Your task to perform on an android device: turn off improve location accuracy Image 0: 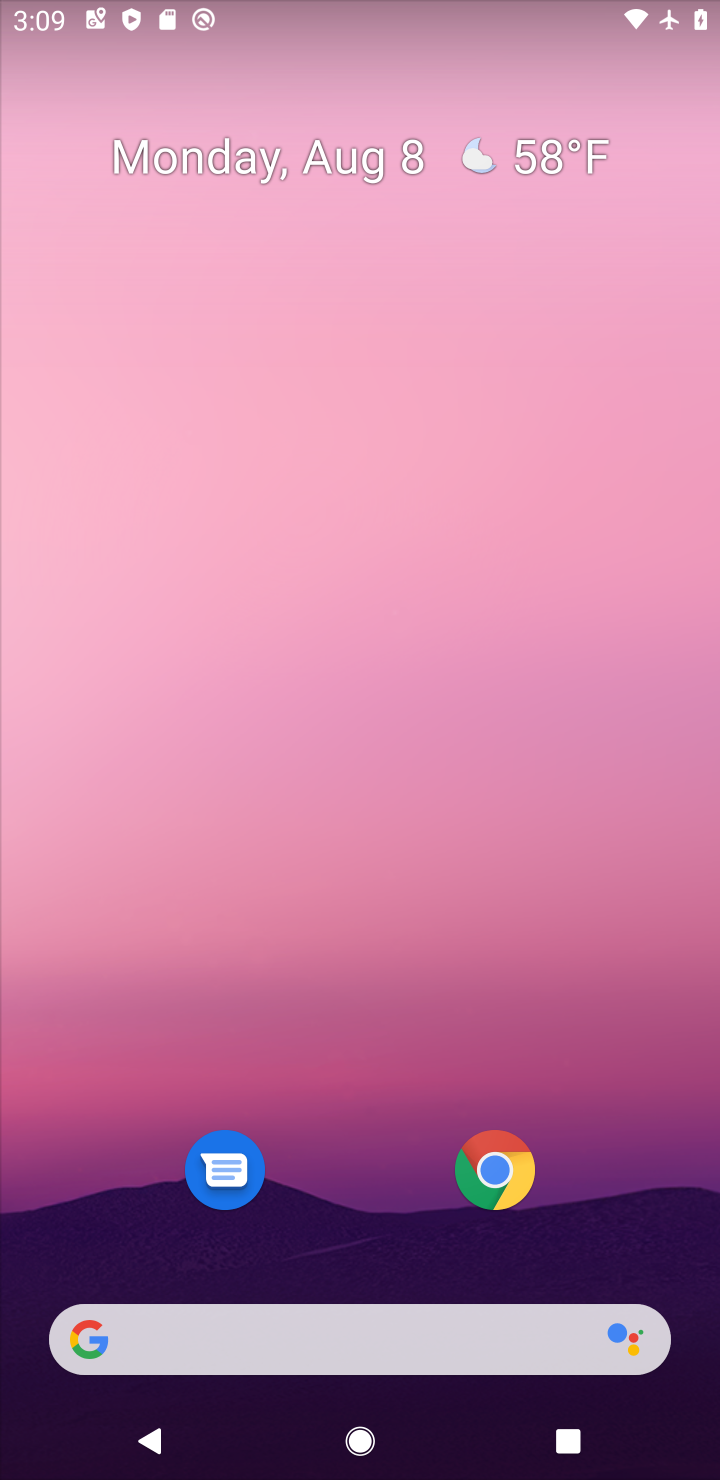
Step 0: click (671, 85)
Your task to perform on an android device: turn off improve location accuracy Image 1: 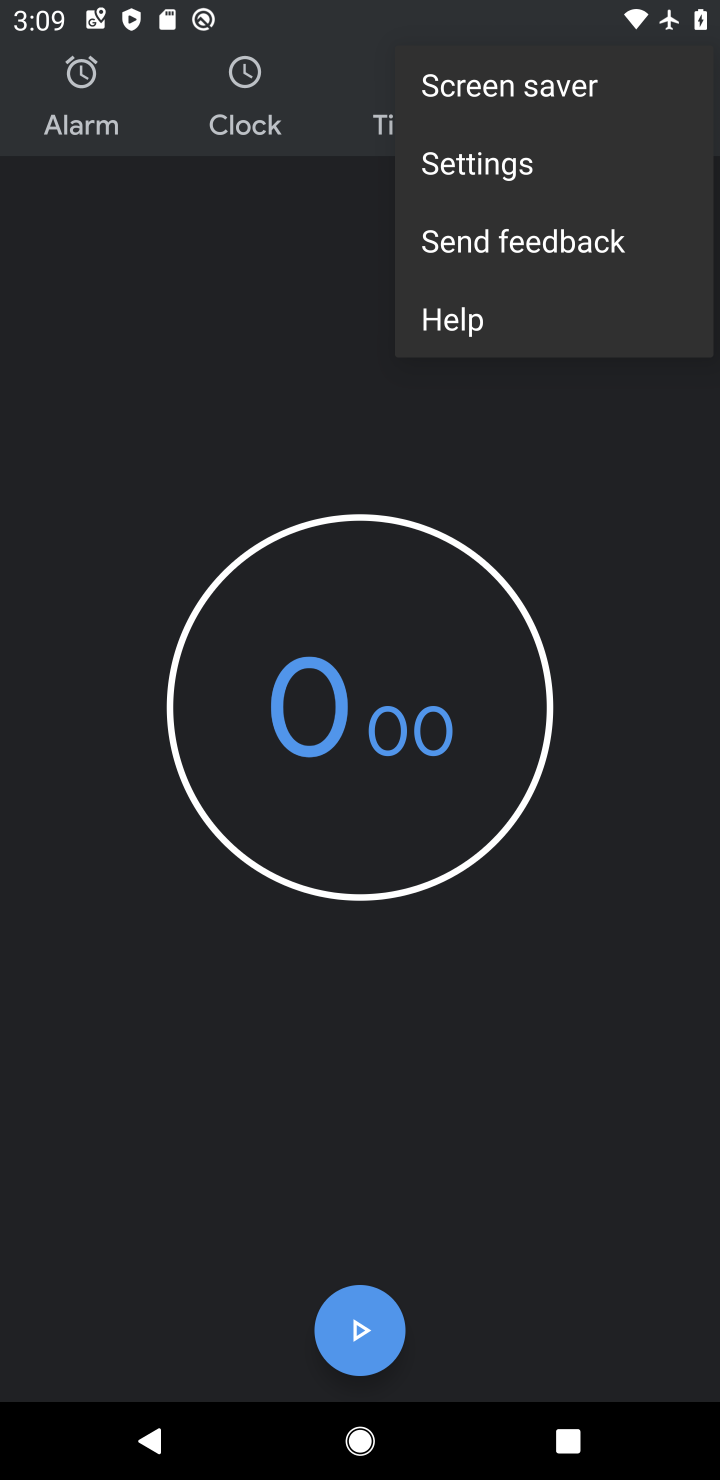
Step 1: press back button
Your task to perform on an android device: turn off improve location accuracy Image 2: 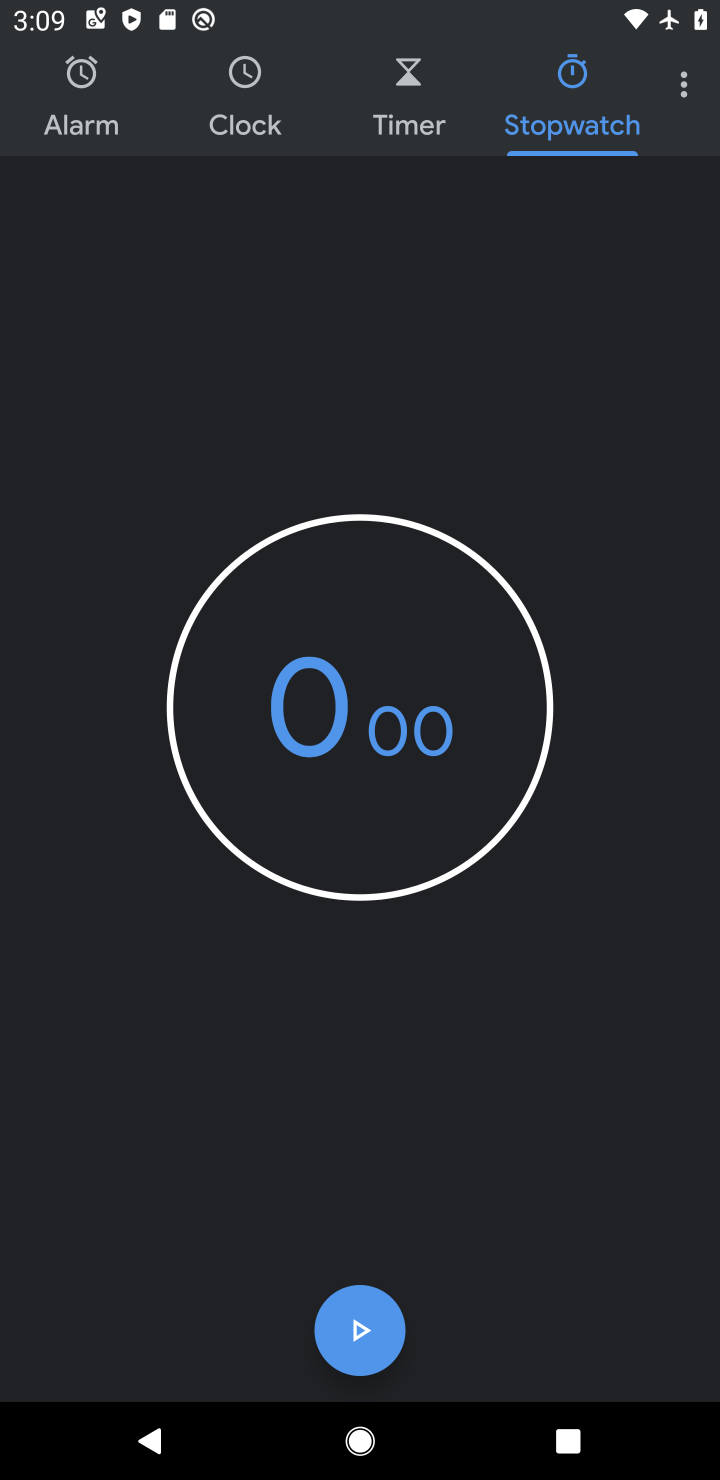
Step 2: press home button
Your task to perform on an android device: turn off improve location accuracy Image 3: 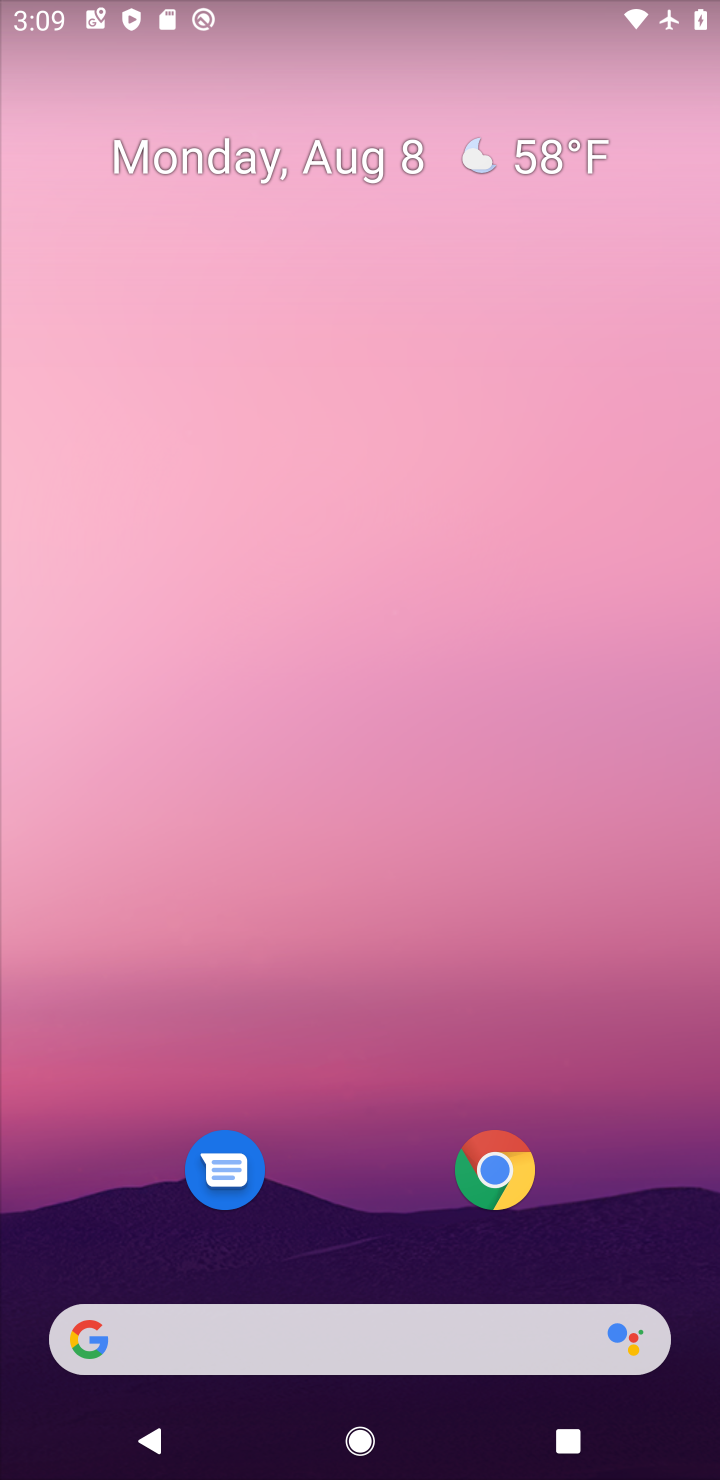
Step 3: drag from (356, 1087) to (356, 508)
Your task to perform on an android device: turn off improve location accuracy Image 4: 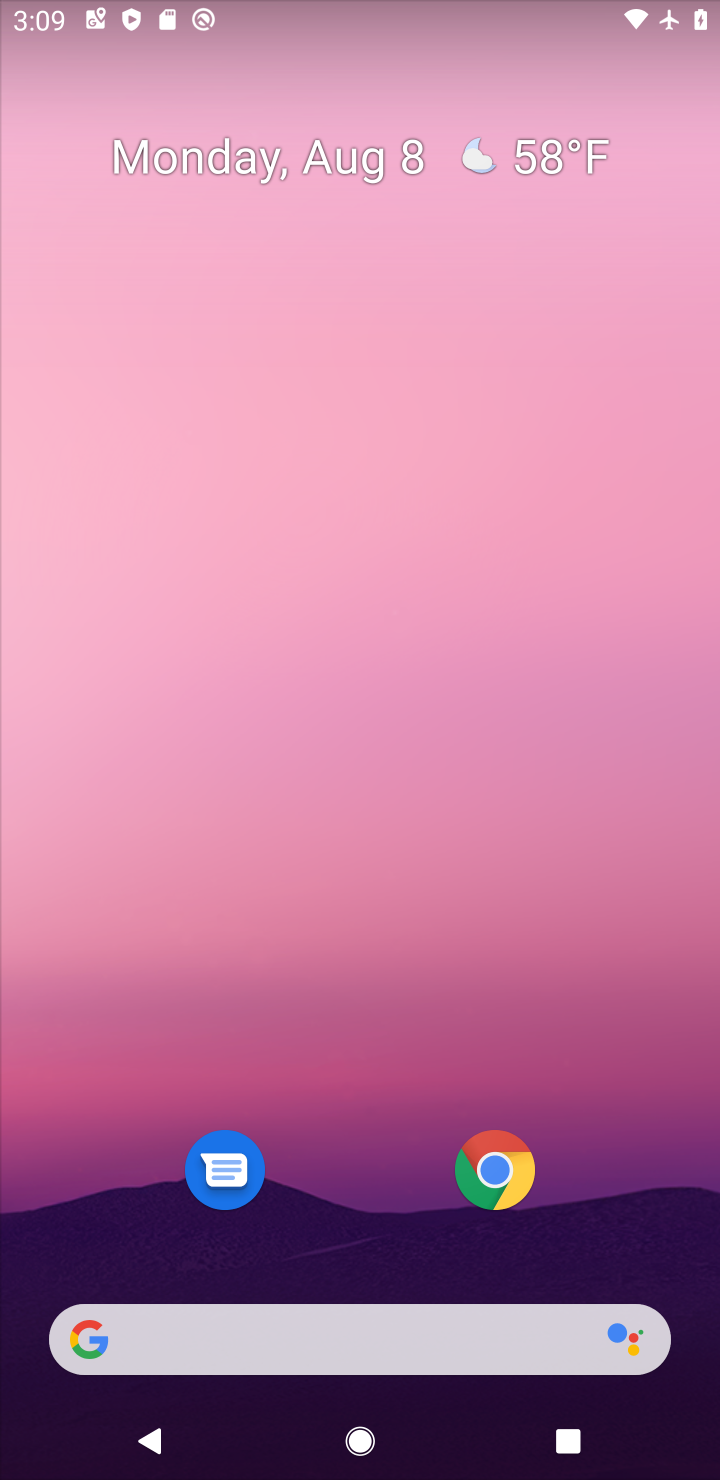
Step 4: drag from (364, 1141) to (356, 282)
Your task to perform on an android device: turn off improve location accuracy Image 5: 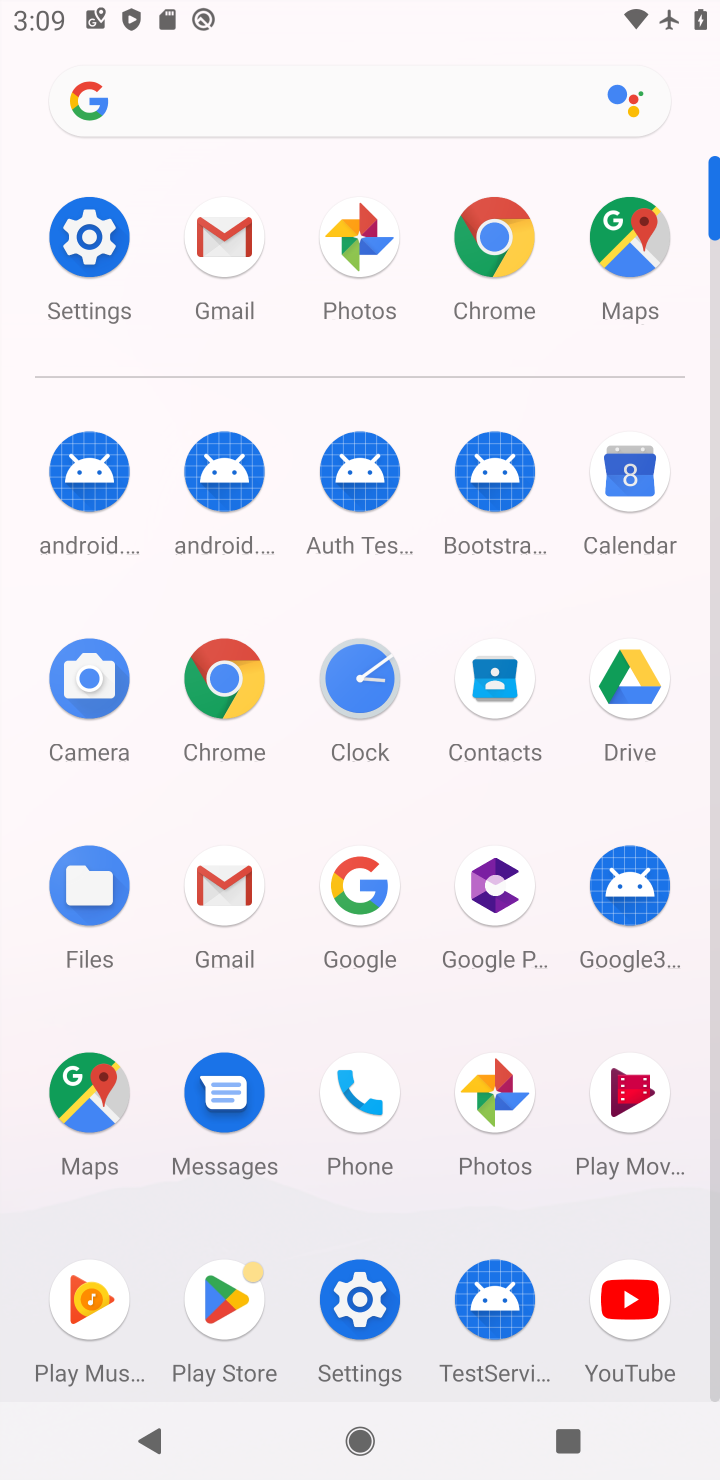
Step 5: click (130, 261)
Your task to perform on an android device: turn off improve location accuracy Image 6: 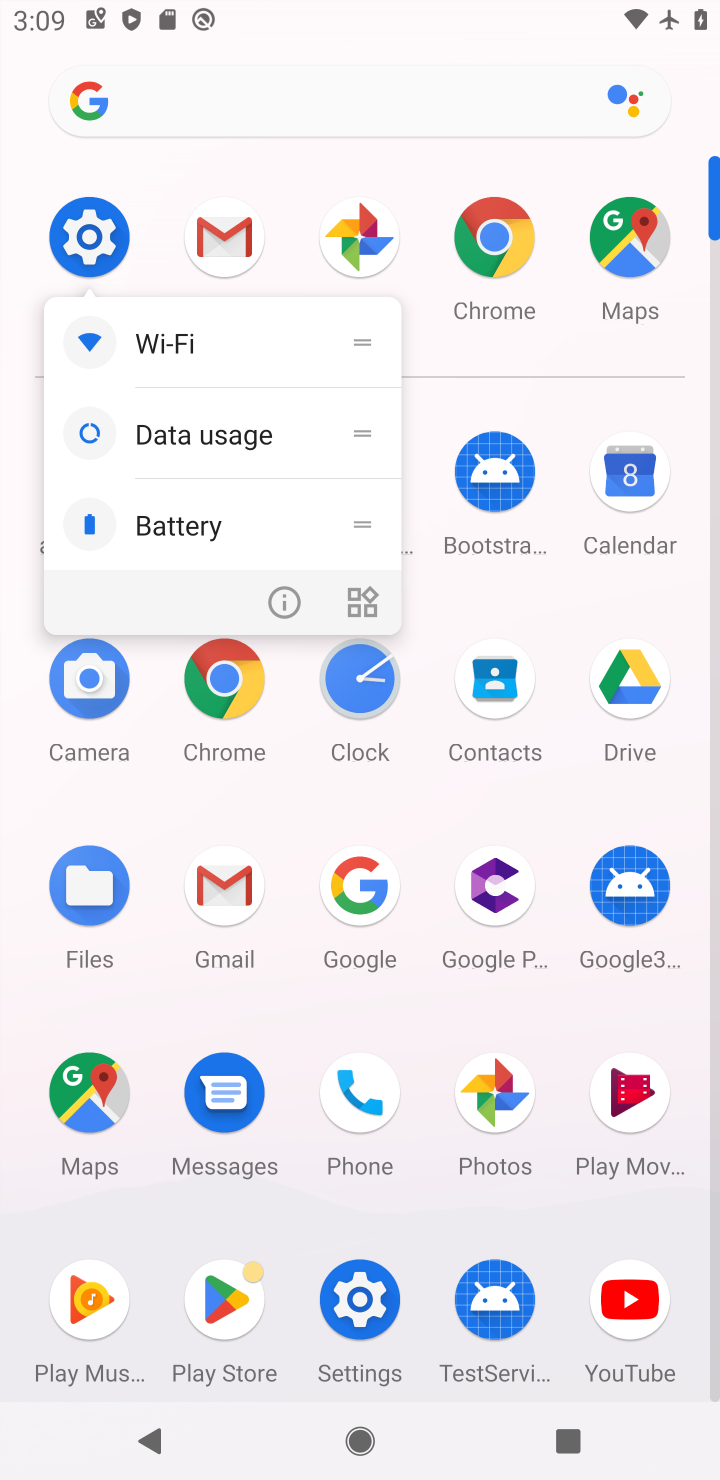
Step 6: click (104, 241)
Your task to perform on an android device: turn off improve location accuracy Image 7: 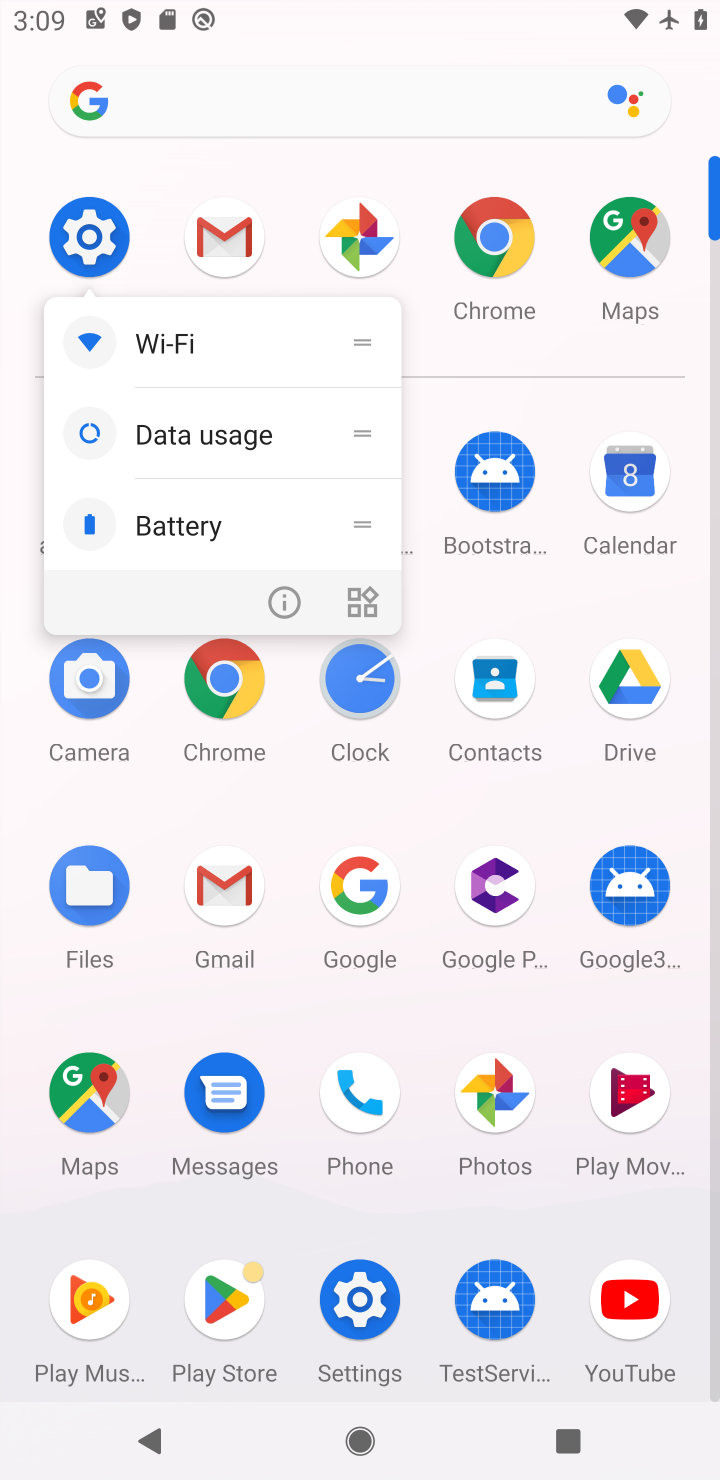
Step 7: click (104, 241)
Your task to perform on an android device: turn off improve location accuracy Image 8: 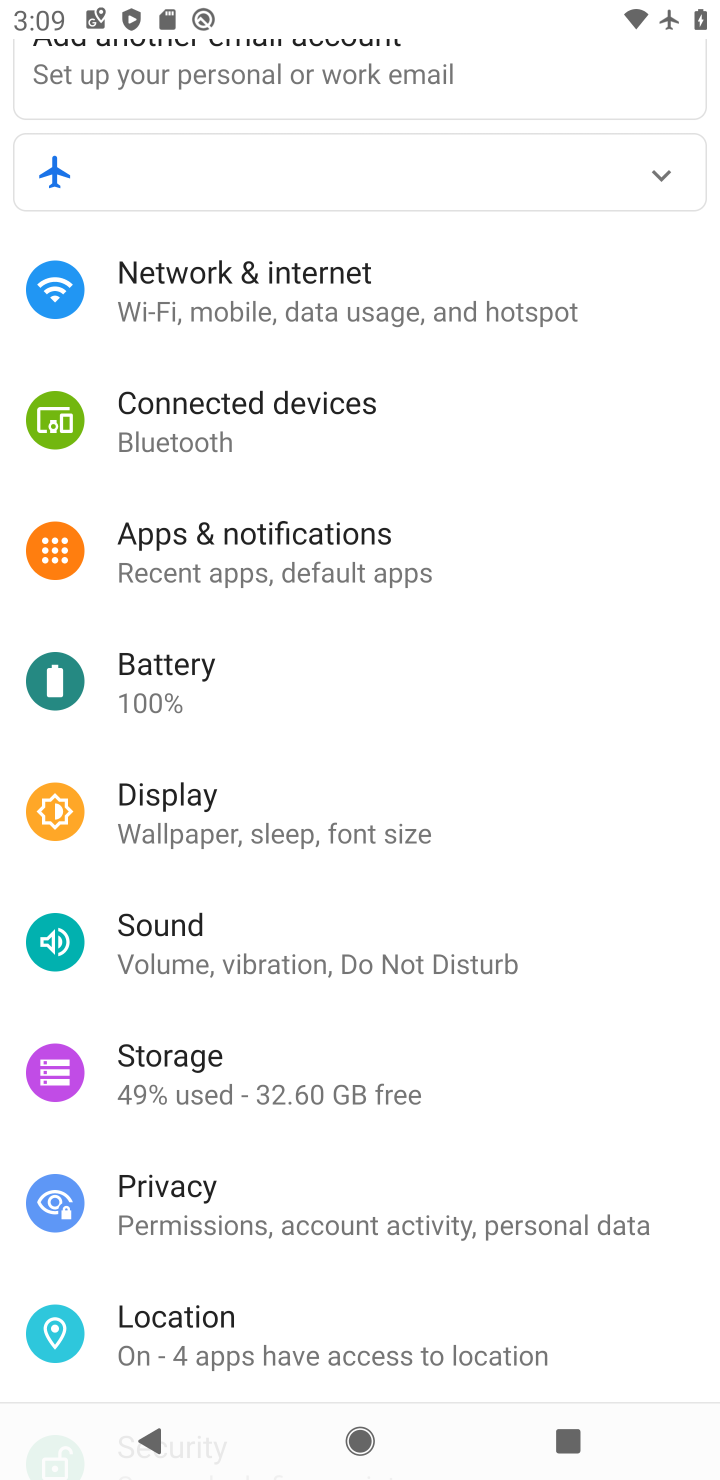
Step 8: click (209, 1347)
Your task to perform on an android device: turn off improve location accuracy Image 9: 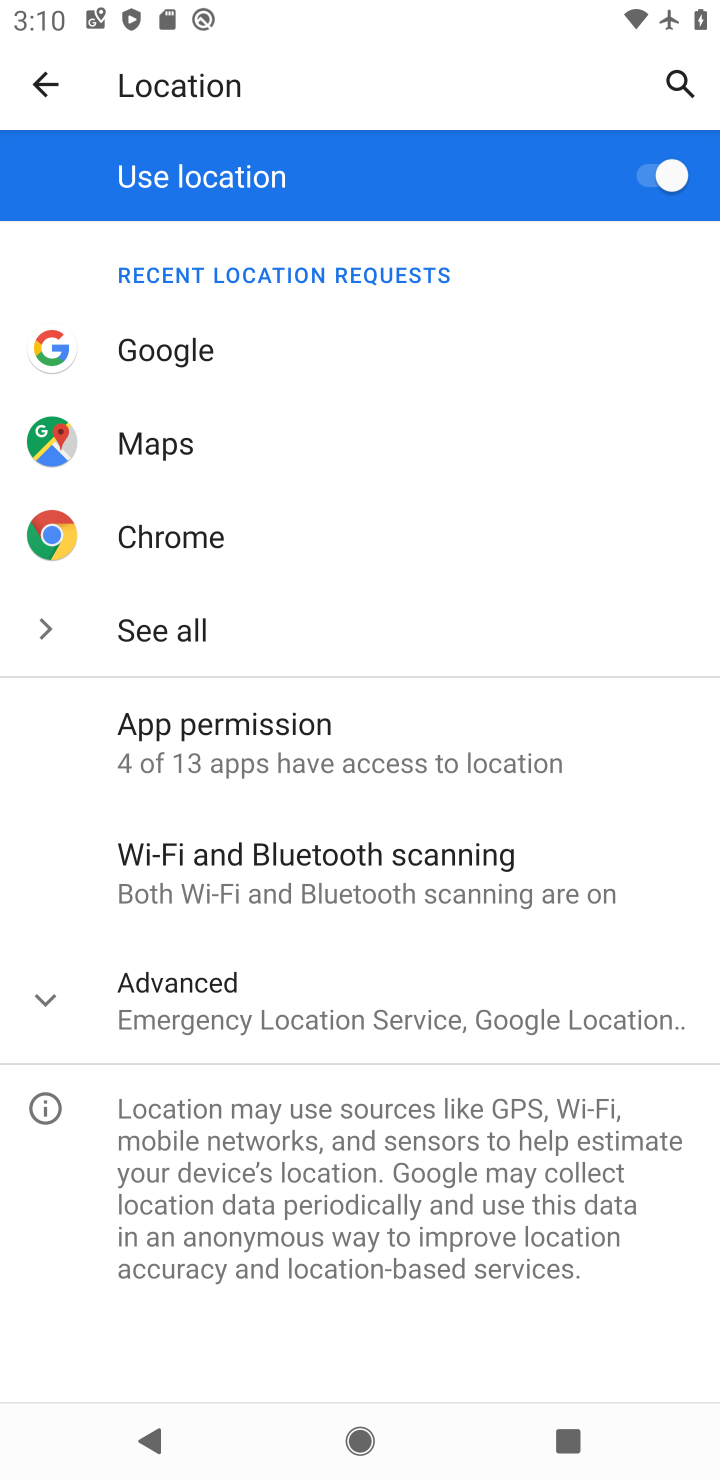
Step 9: click (308, 982)
Your task to perform on an android device: turn off improve location accuracy Image 10: 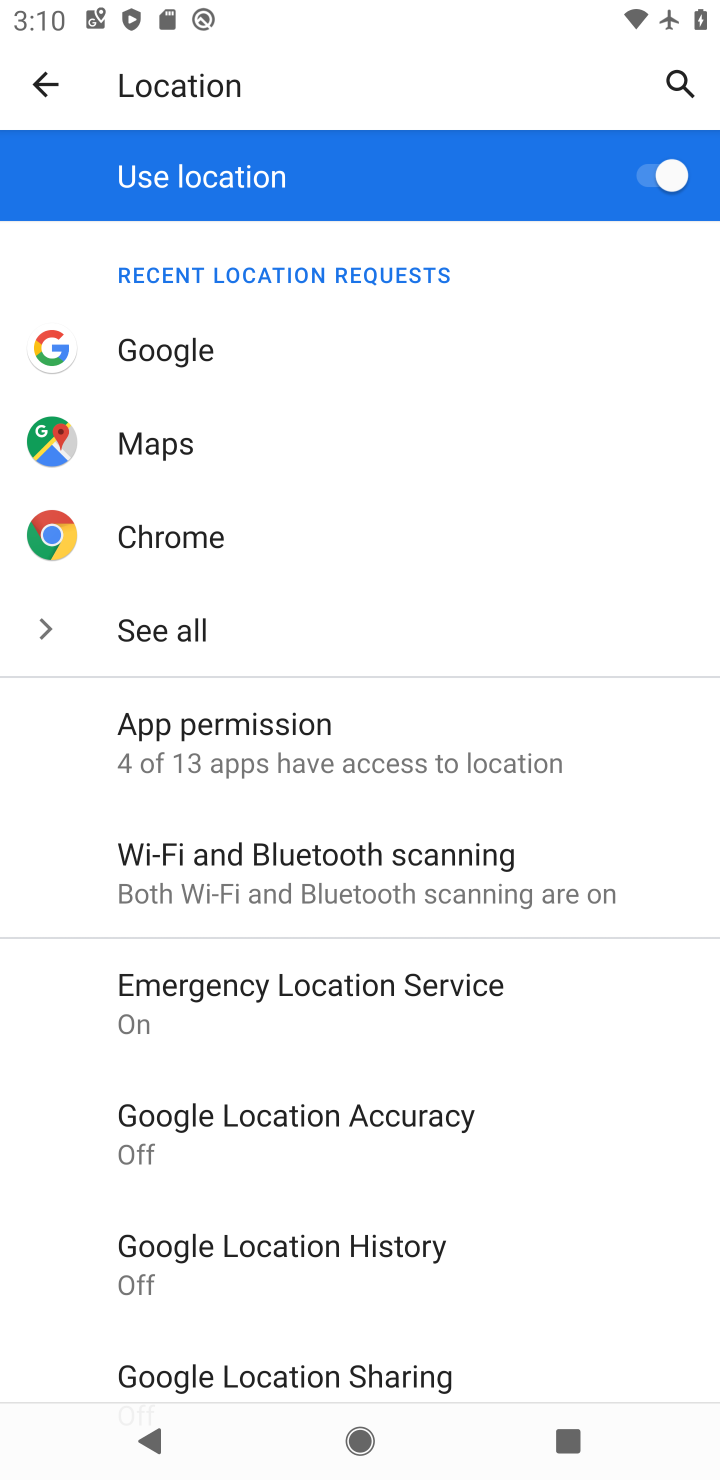
Step 10: click (362, 1119)
Your task to perform on an android device: turn off improve location accuracy Image 11: 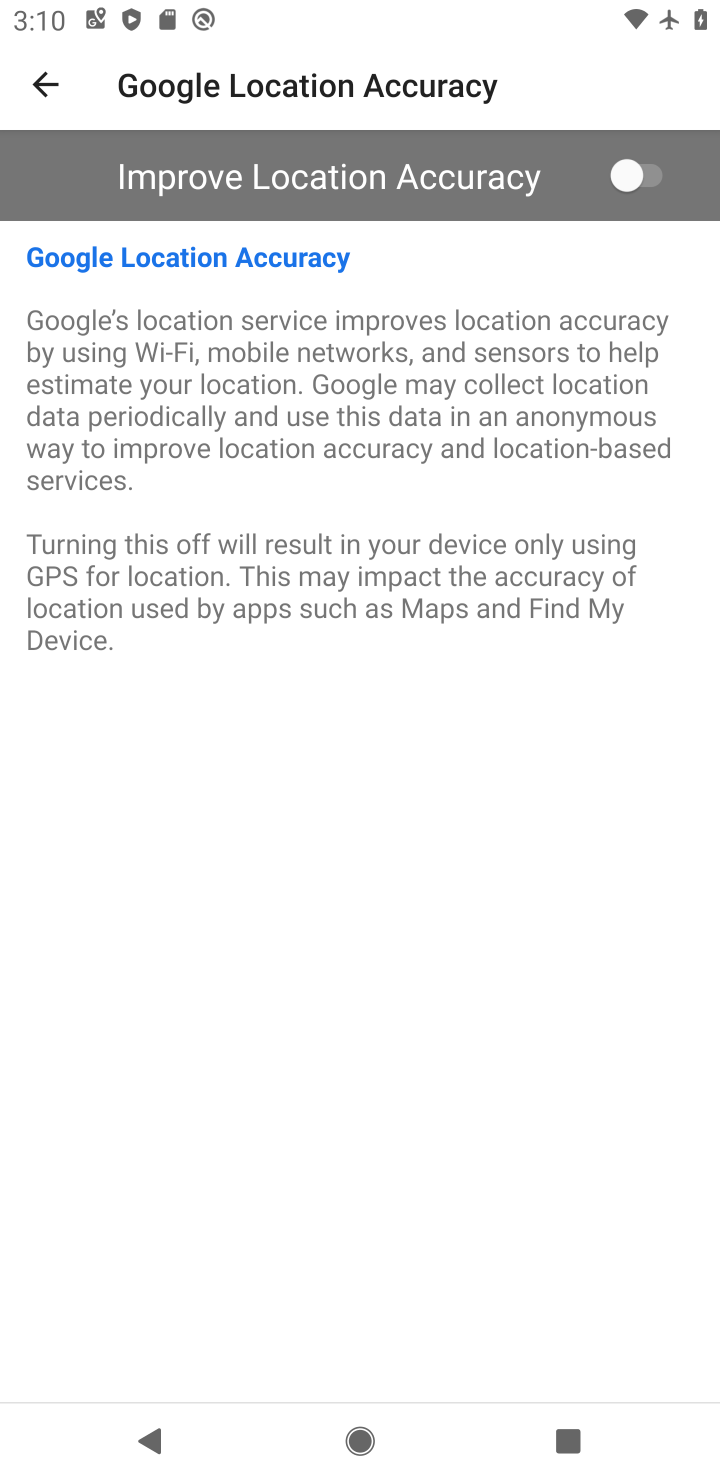
Step 11: task complete